Your task to perform on an android device: Open Chrome and go to settings Image 0: 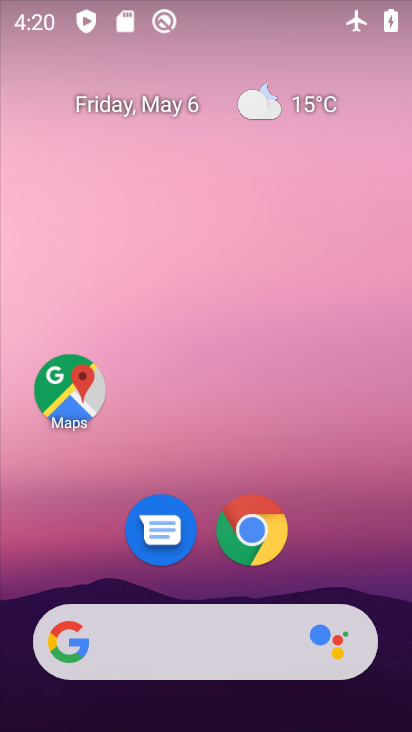
Step 0: drag from (380, 538) to (347, 148)
Your task to perform on an android device: Open Chrome and go to settings Image 1: 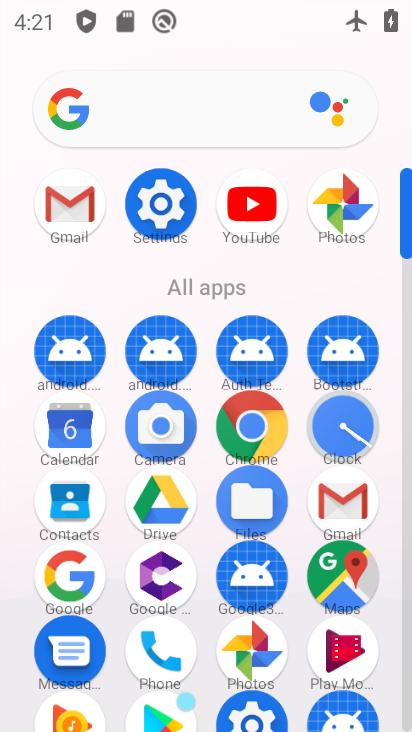
Step 1: click (253, 422)
Your task to perform on an android device: Open Chrome and go to settings Image 2: 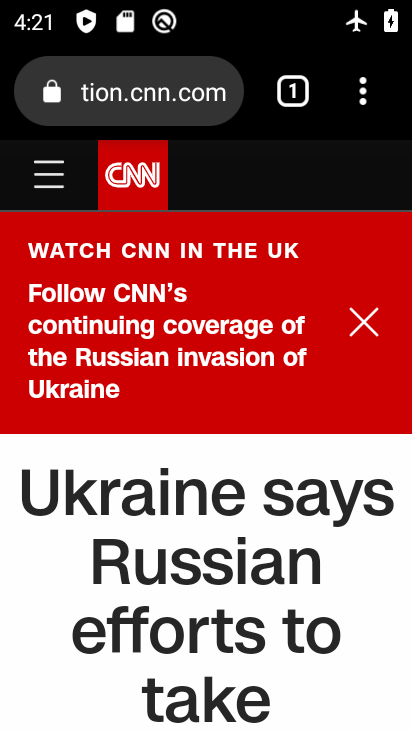
Step 2: task complete